Your task to perform on an android device: toggle improve location accuracy Image 0: 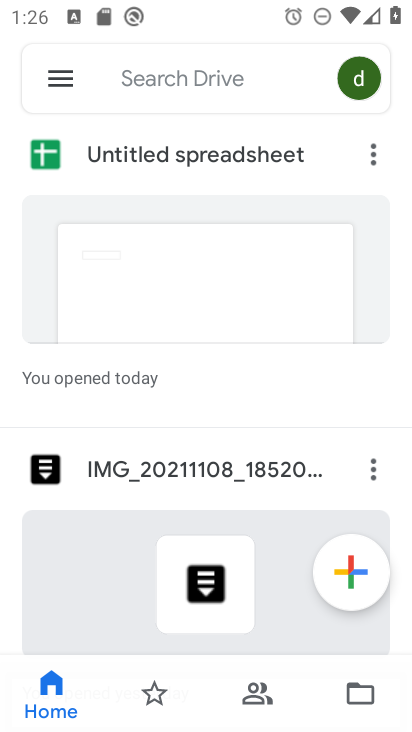
Step 0: press home button
Your task to perform on an android device: toggle improve location accuracy Image 1: 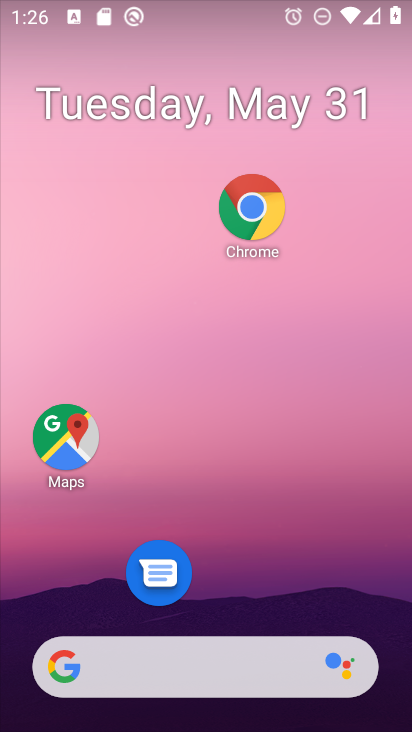
Step 1: drag from (247, 610) to (253, 93)
Your task to perform on an android device: toggle improve location accuracy Image 2: 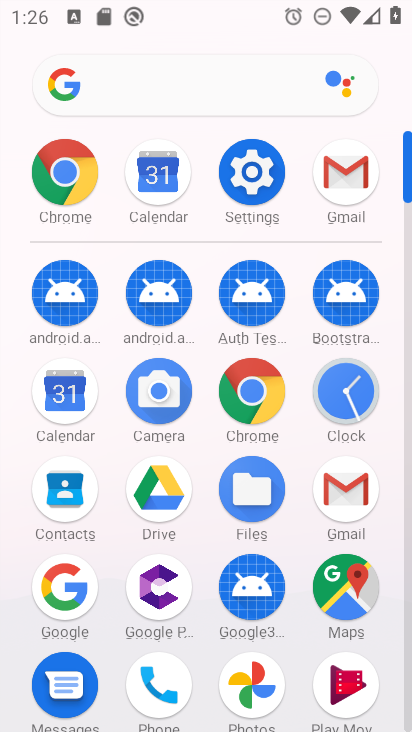
Step 2: click (256, 190)
Your task to perform on an android device: toggle improve location accuracy Image 3: 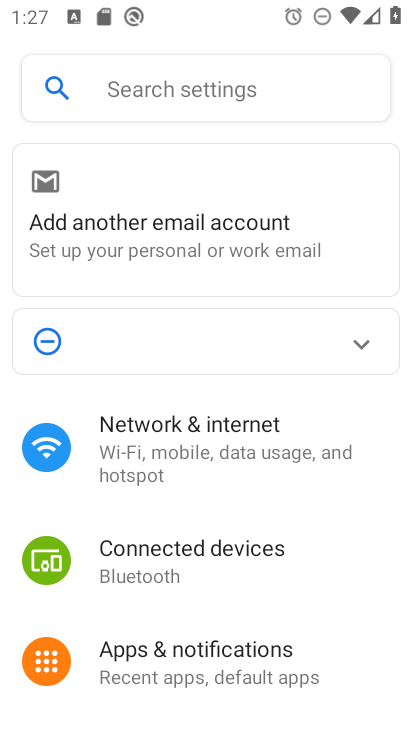
Step 3: drag from (225, 581) to (200, 273)
Your task to perform on an android device: toggle improve location accuracy Image 4: 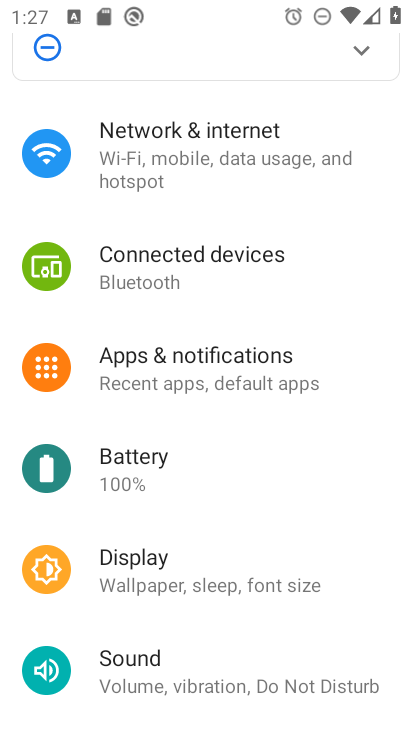
Step 4: drag from (193, 518) to (193, 318)
Your task to perform on an android device: toggle improve location accuracy Image 5: 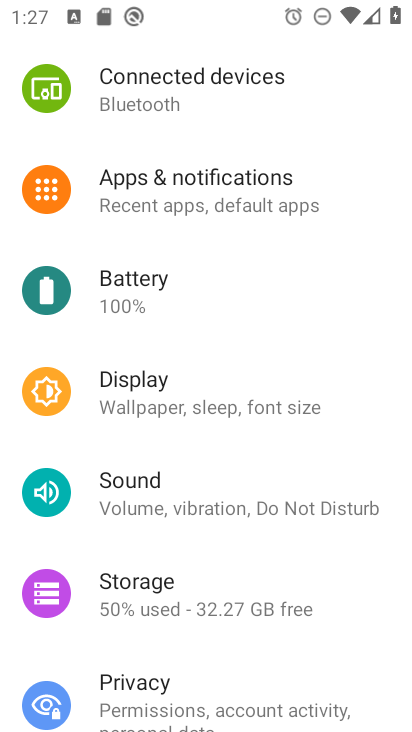
Step 5: drag from (152, 570) to (172, 328)
Your task to perform on an android device: toggle improve location accuracy Image 6: 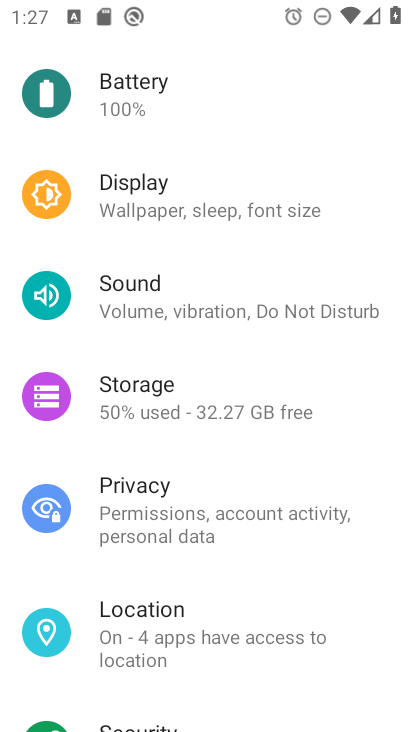
Step 6: click (166, 625)
Your task to perform on an android device: toggle improve location accuracy Image 7: 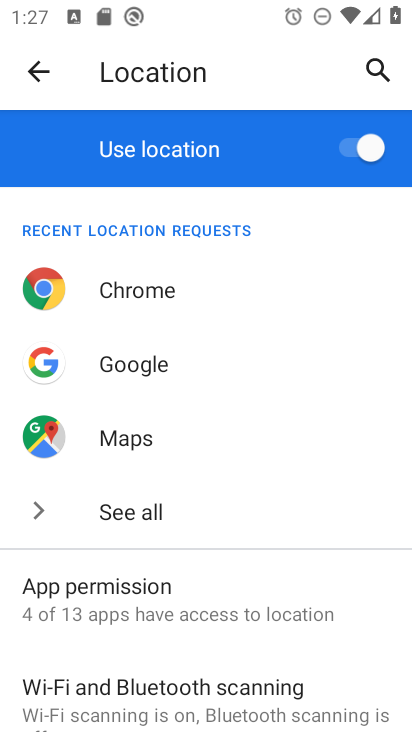
Step 7: drag from (170, 564) to (179, 248)
Your task to perform on an android device: toggle improve location accuracy Image 8: 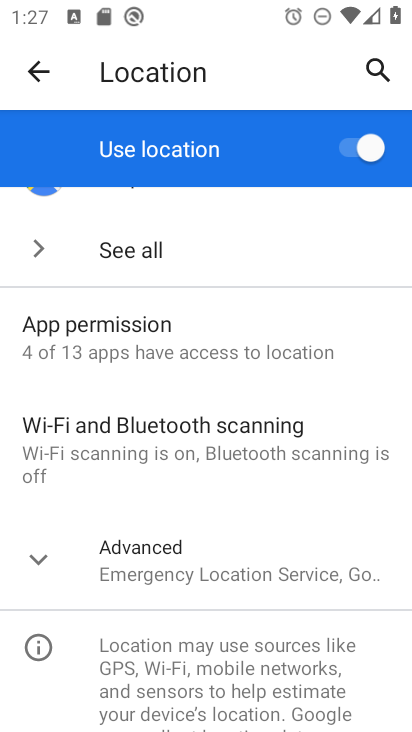
Step 8: click (169, 573)
Your task to perform on an android device: toggle improve location accuracy Image 9: 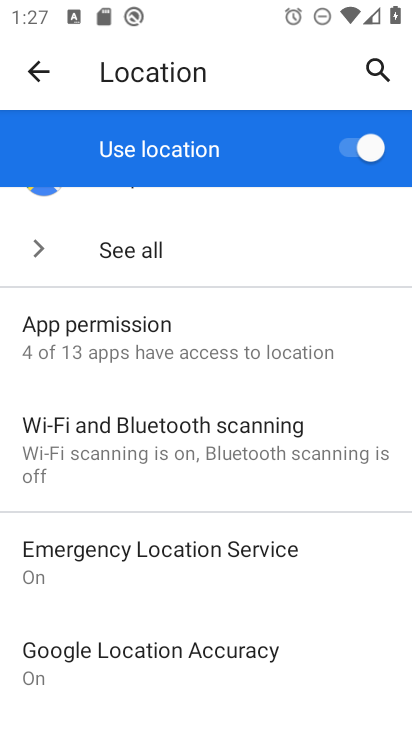
Step 9: click (180, 656)
Your task to perform on an android device: toggle improve location accuracy Image 10: 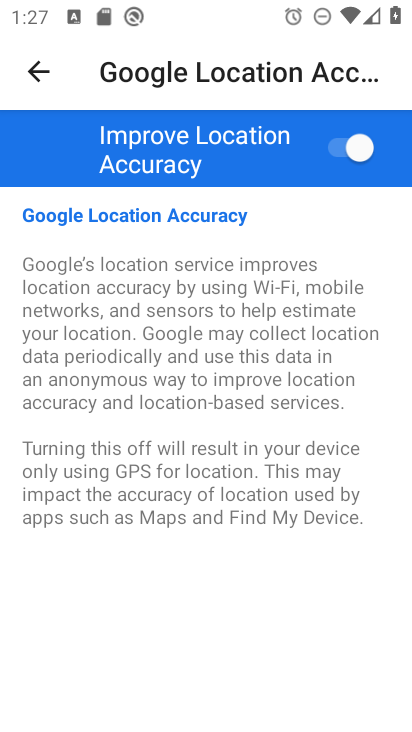
Step 10: click (336, 155)
Your task to perform on an android device: toggle improve location accuracy Image 11: 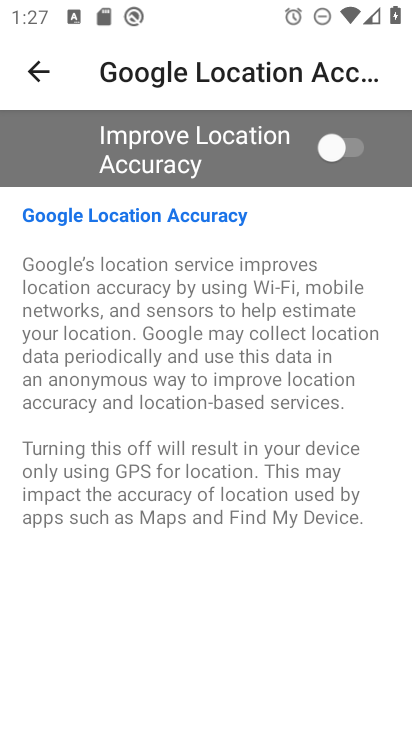
Step 11: task complete